Your task to perform on an android device: Go to Yahoo.com Image 0: 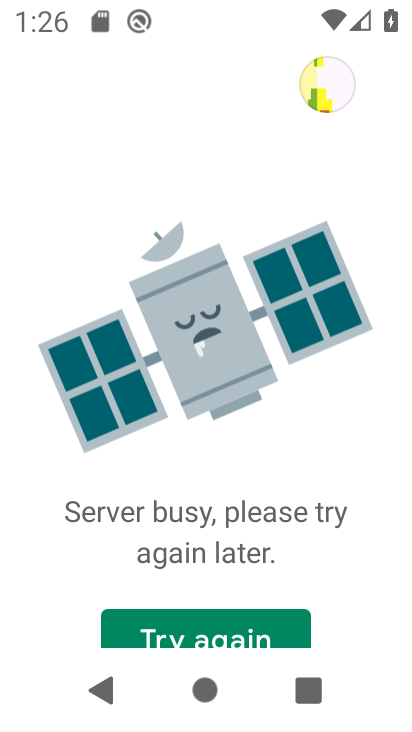
Step 0: press home button
Your task to perform on an android device: Go to Yahoo.com Image 1: 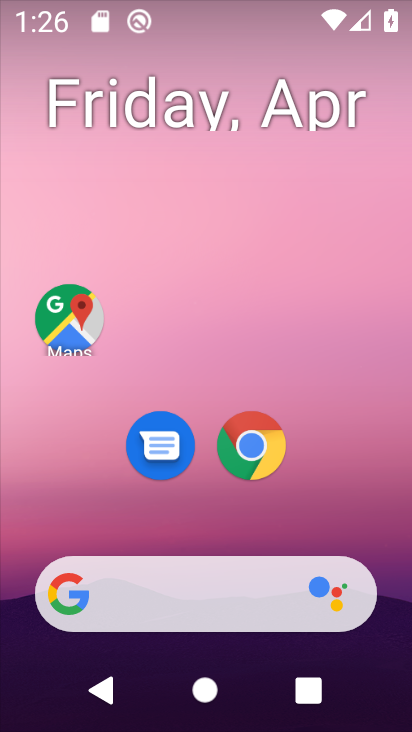
Step 1: drag from (339, 502) to (323, 162)
Your task to perform on an android device: Go to Yahoo.com Image 2: 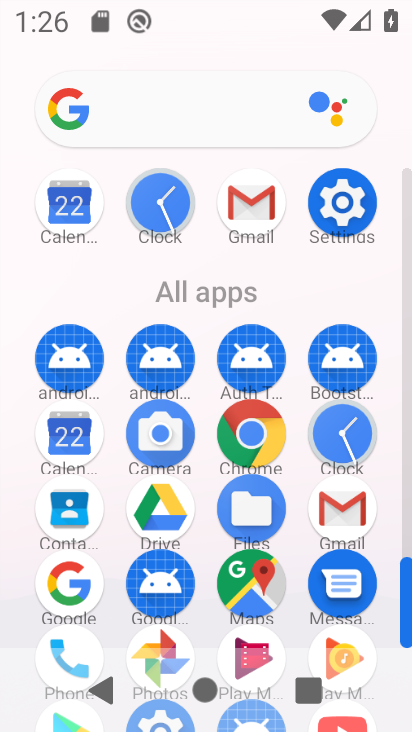
Step 2: click (254, 447)
Your task to perform on an android device: Go to Yahoo.com Image 3: 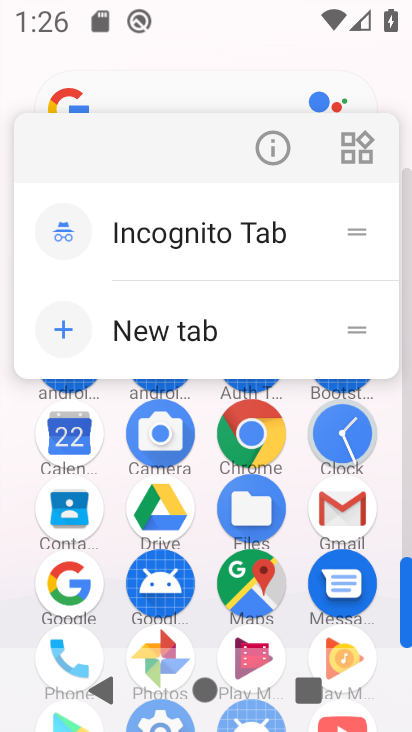
Step 3: click (259, 439)
Your task to perform on an android device: Go to Yahoo.com Image 4: 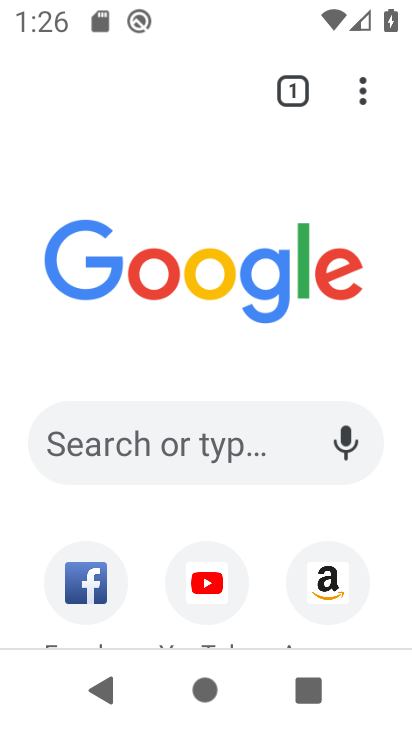
Step 4: drag from (399, 534) to (397, 277)
Your task to perform on an android device: Go to Yahoo.com Image 5: 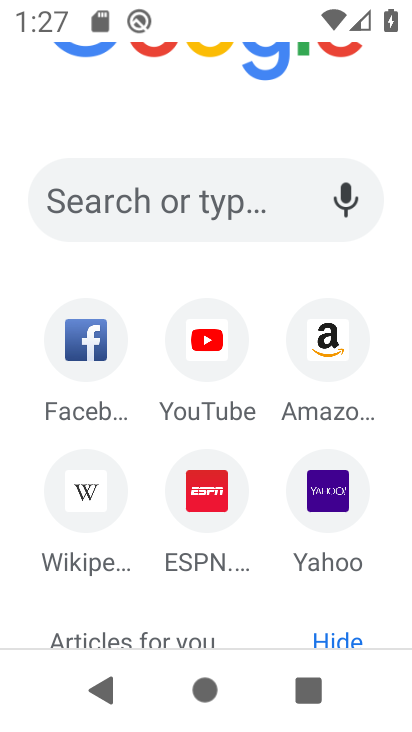
Step 5: click (335, 494)
Your task to perform on an android device: Go to Yahoo.com Image 6: 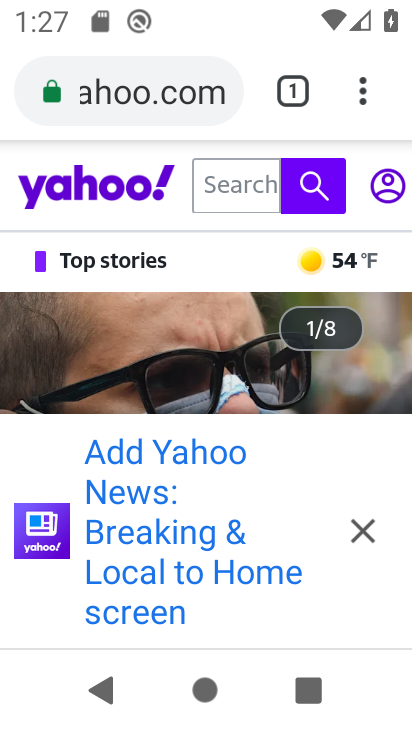
Step 6: task complete